Your task to perform on an android device: stop showing notifications on the lock screen Image 0: 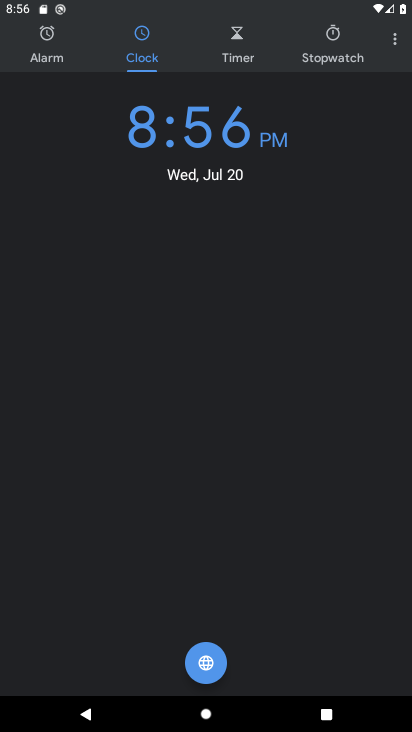
Step 0: press home button
Your task to perform on an android device: stop showing notifications on the lock screen Image 1: 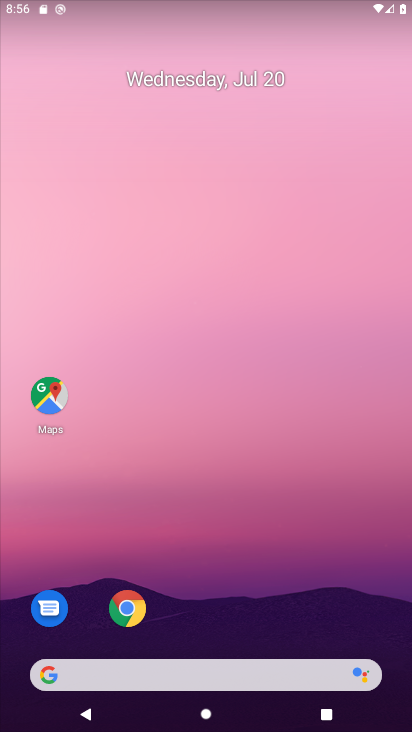
Step 1: drag from (225, 340) to (222, 68)
Your task to perform on an android device: stop showing notifications on the lock screen Image 2: 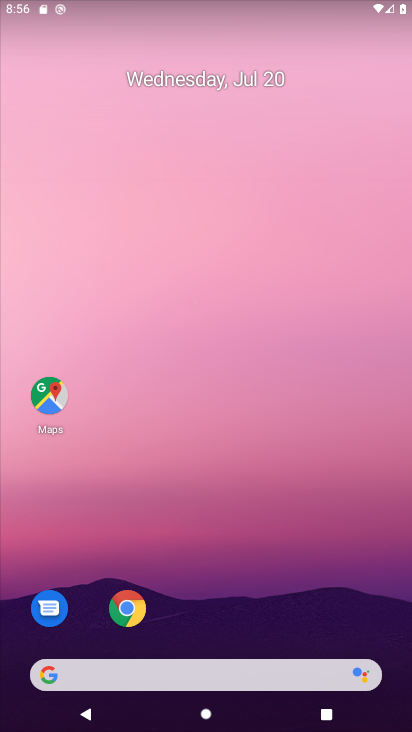
Step 2: drag from (218, 587) to (176, 52)
Your task to perform on an android device: stop showing notifications on the lock screen Image 3: 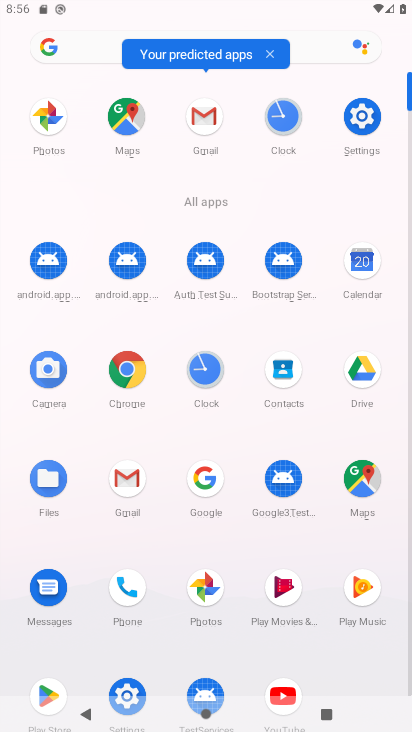
Step 3: click (368, 118)
Your task to perform on an android device: stop showing notifications on the lock screen Image 4: 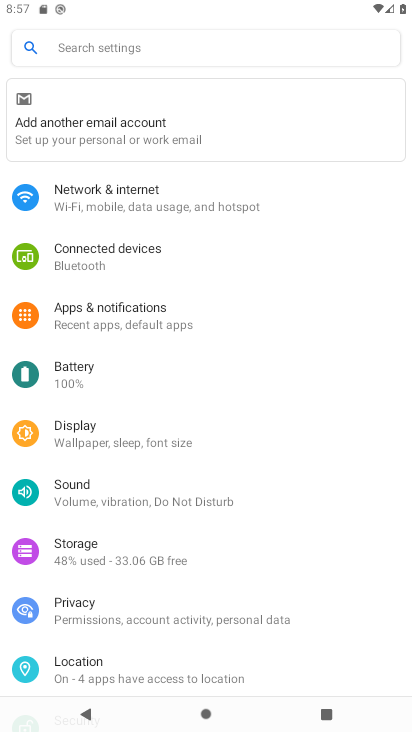
Step 4: click (152, 323)
Your task to perform on an android device: stop showing notifications on the lock screen Image 5: 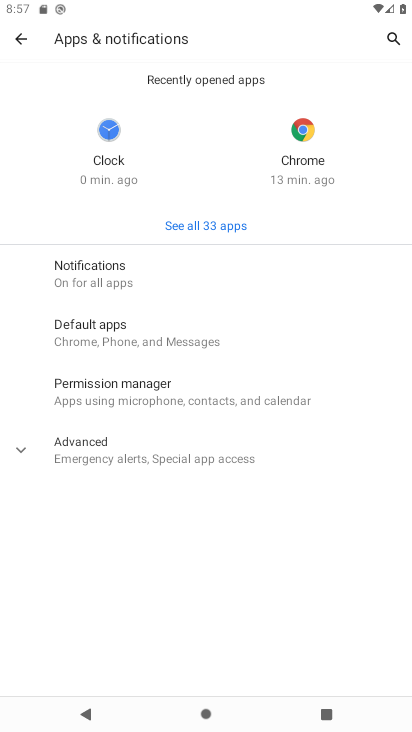
Step 5: click (110, 269)
Your task to perform on an android device: stop showing notifications on the lock screen Image 6: 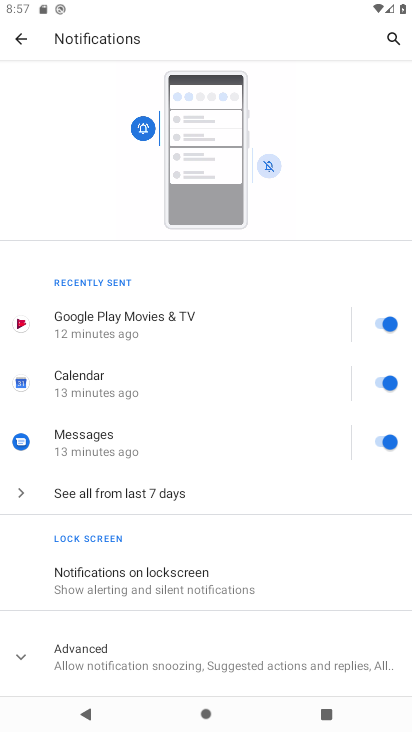
Step 6: click (174, 578)
Your task to perform on an android device: stop showing notifications on the lock screen Image 7: 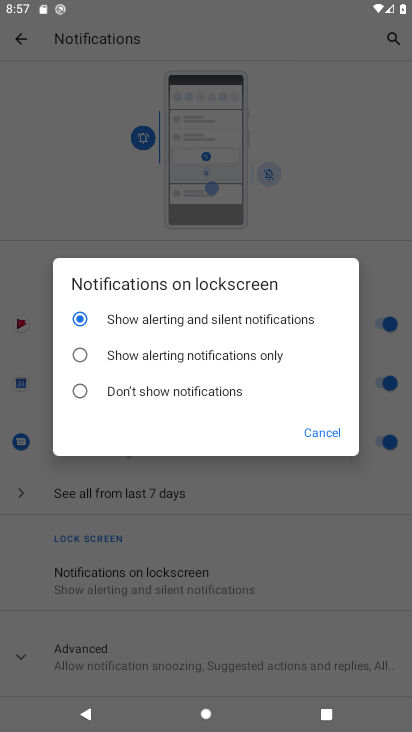
Step 7: click (155, 395)
Your task to perform on an android device: stop showing notifications on the lock screen Image 8: 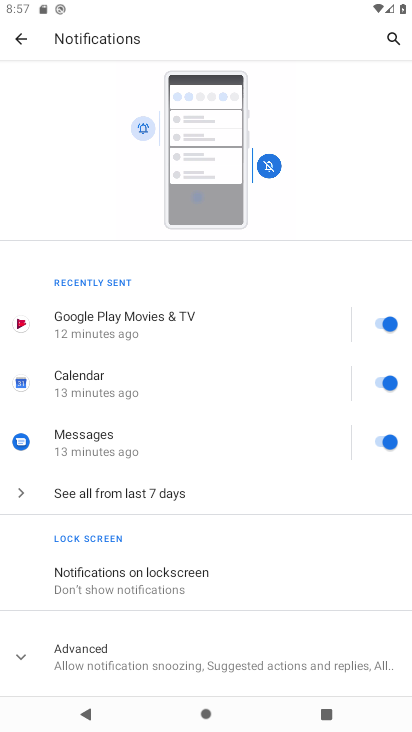
Step 8: task complete